Your task to perform on an android device: manage bookmarks in the chrome app Image 0: 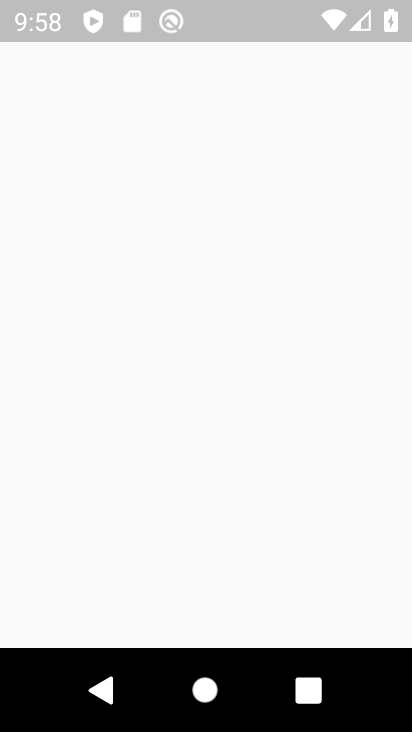
Step 0: press home button
Your task to perform on an android device: manage bookmarks in the chrome app Image 1: 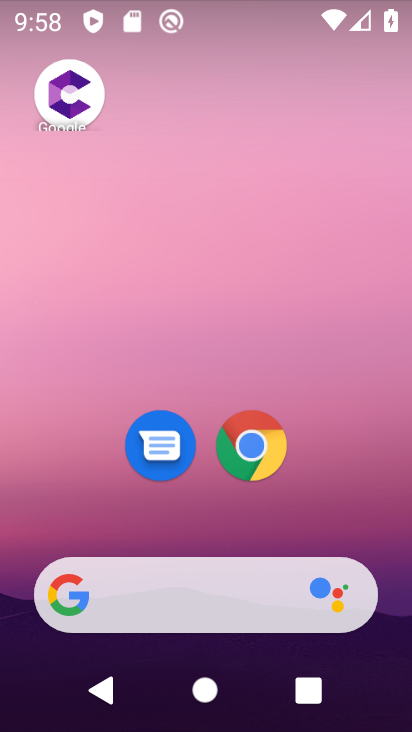
Step 1: click (248, 442)
Your task to perform on an android device: manage bookmarks in the chrome app Image 2: 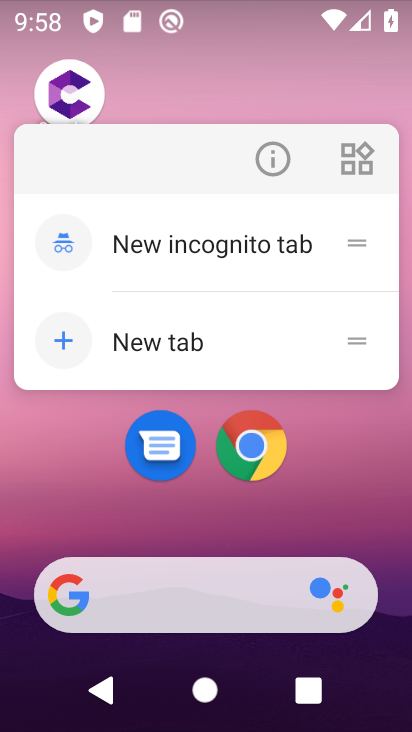
Step 2: click (246, 442)
Your task to perform on an android device: manage bookmarks in the chrome app Image 3: 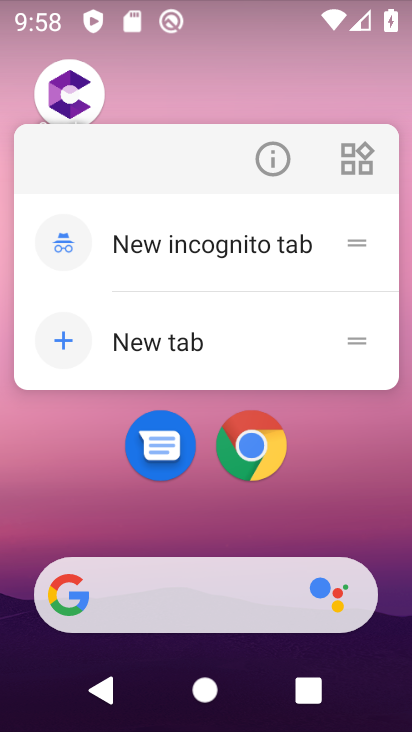
Step 3: click (246, 441)
Your task to perform on an android device: manage bookmarks in the chrome app Image 4: 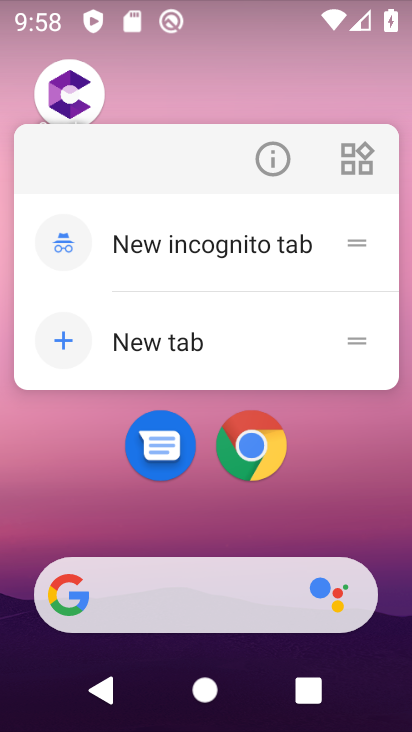
Step 4: click (257, 465)
Your task to perform on an android device: manage bookmarks in the chrome app Image 5: 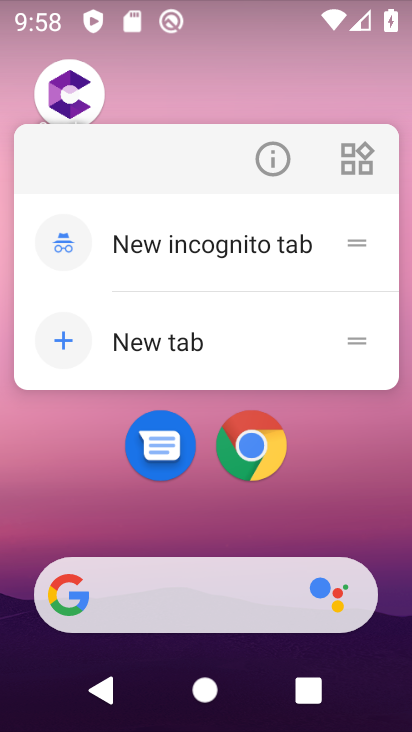
Step 5: click (264, 457)
Your task to perform on an android device: manage bookmarks in the chrome app Image 6: 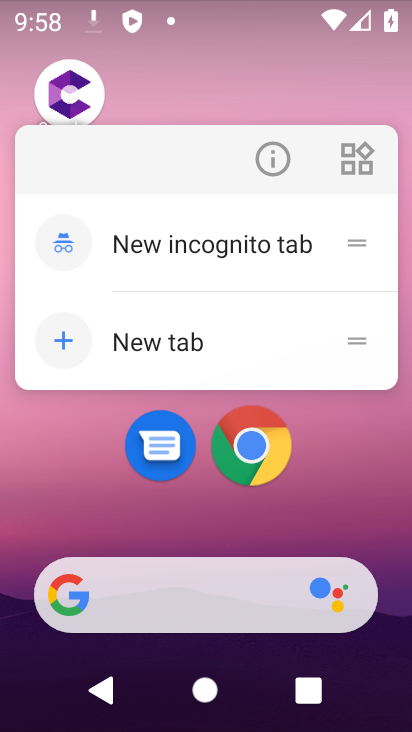
Step 6: click (263, 452)
Your task to perform on an android device: manage bookmarks in the chrome app Image 7: 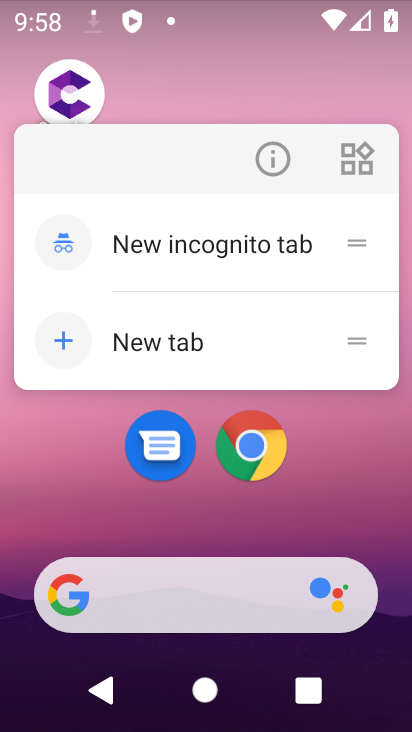
Step 7: click (260, 445)
Your task to perform on an android device: manage bookmarks in the chrome app Image 8: 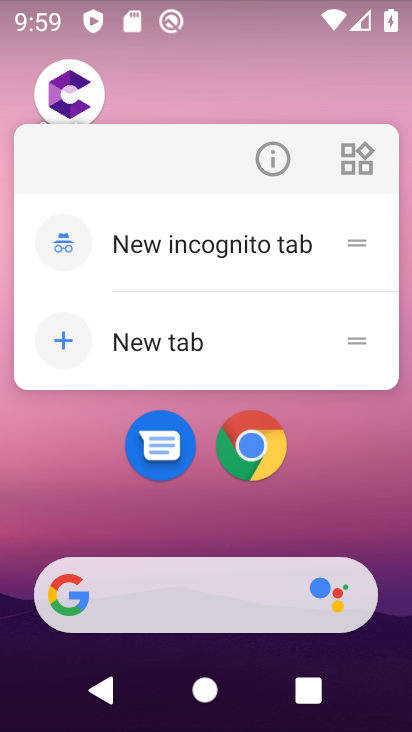
Step 8: click (239, 447)
Your task to perform on an android device: manage bookmarks in the chrome app Image 9: 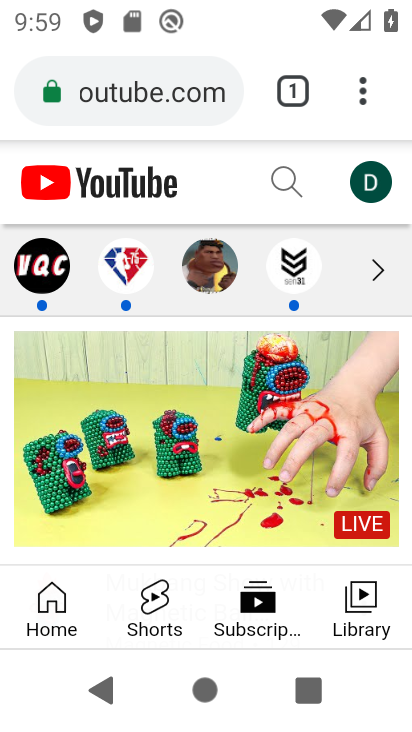
Step 9: click (367, 83)
Your task to perform on an android device: manage bookmarks in the chrome app Image 10: 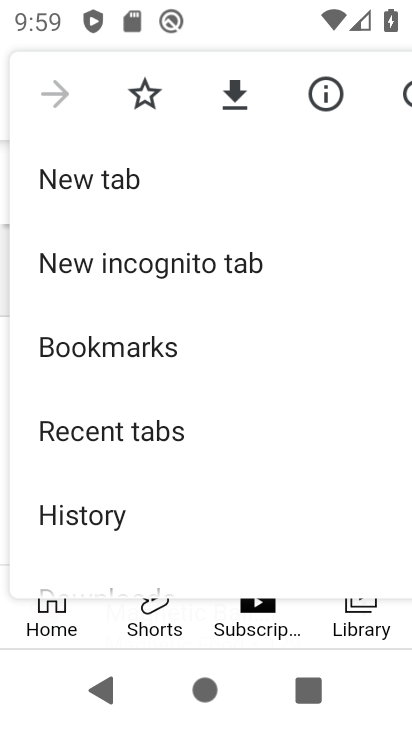
Step 10: click (142, 362)
Your task to perform on an android device: manage bookmarks in the chrome app Image 11: 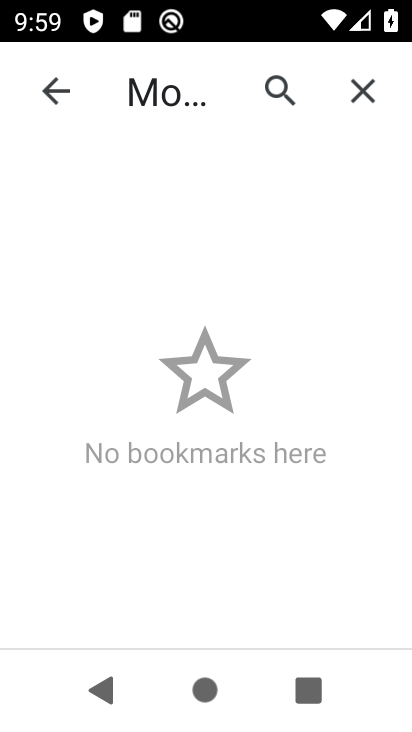
Step 11: click (70, 88)
Your task to perform on an android device: manage bookmarks in the chrome app Image 12: 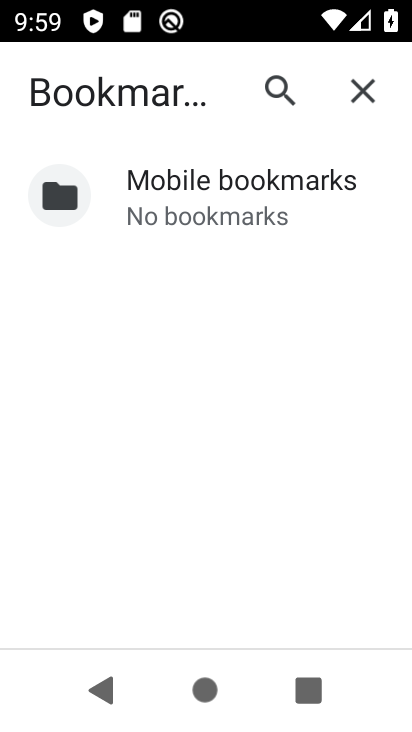
Step 12: task complete